Your task to perform on an android device: allow cookies in the chrome app Image 0: 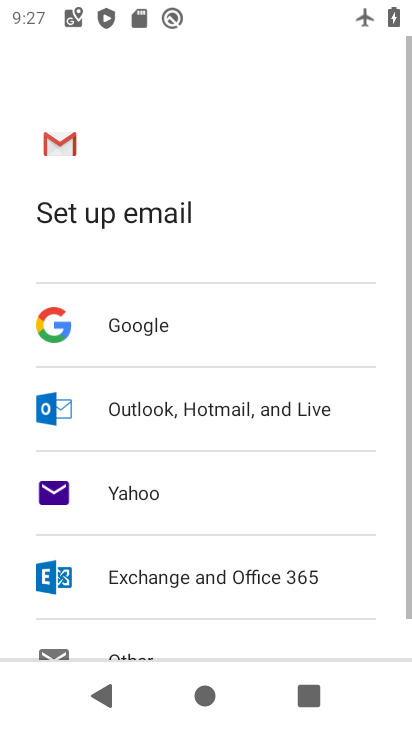
Step 0: press home button
Your task to perform on an android device: allow cookies in the chrome app Image 1: 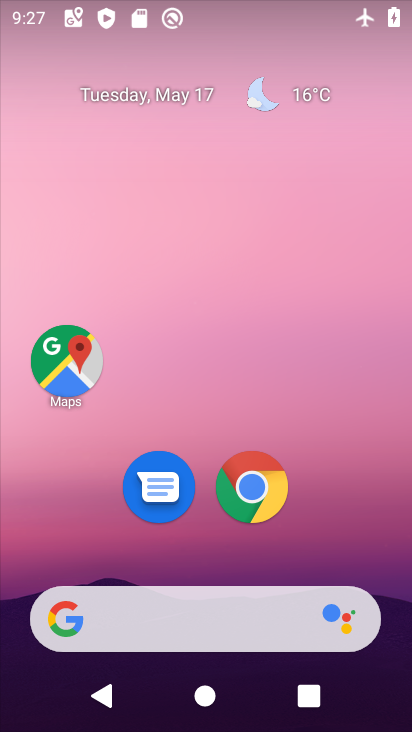
Step 1: click (268, 479)
Your task to perform on an android device: allow cookies in the chrome app Image 2: 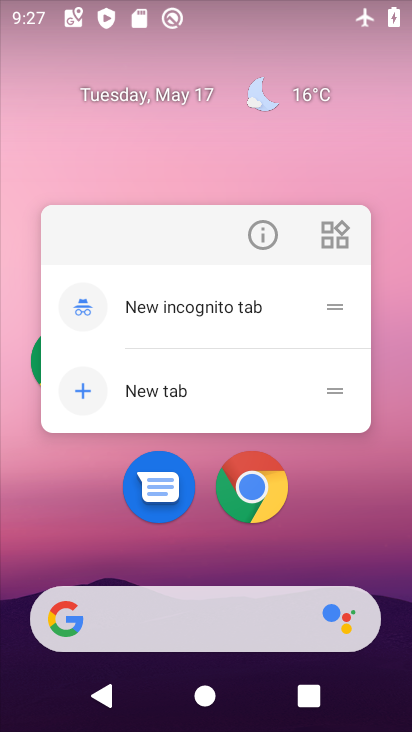
Step 2: click (268, 478)
Your task to perform on an android device: allow cookies in the chrome app Image 3: 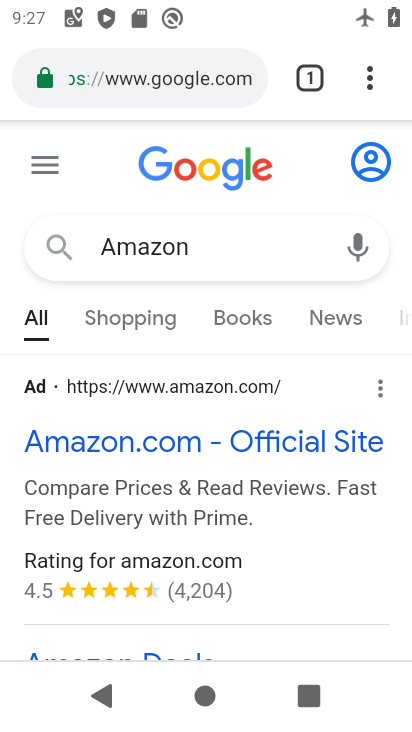
Step 3: click (374, 79)
Your task to perform on an android device: allow cookies in the chrome app Image 4: 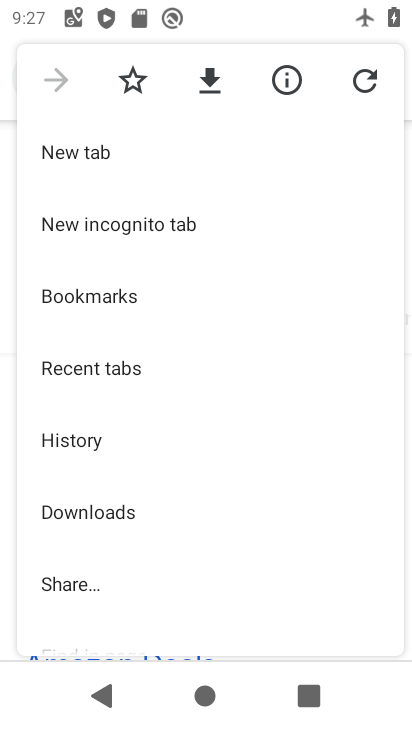
Step 4: drag from (103, 515) to (149, 300)
Your task to perform on an android device: allow cookies in the chrome app Image 5: 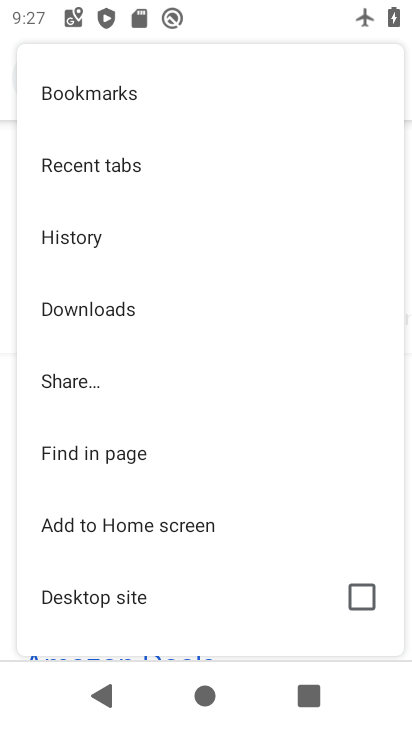
Step 5: drag from (125, 518) to (185, 257)
Your task to perform on an android device: allow cookies in the chrome app Image 6: 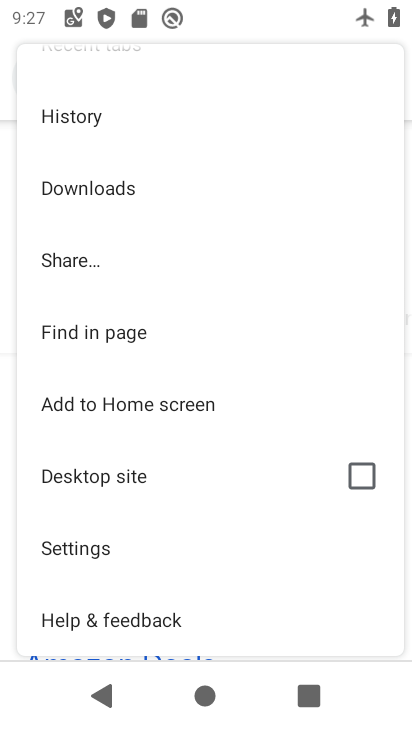
Step 6: click (92, 551)
Your task to perform on an android device: allow cookies in the chrome app Image 7: 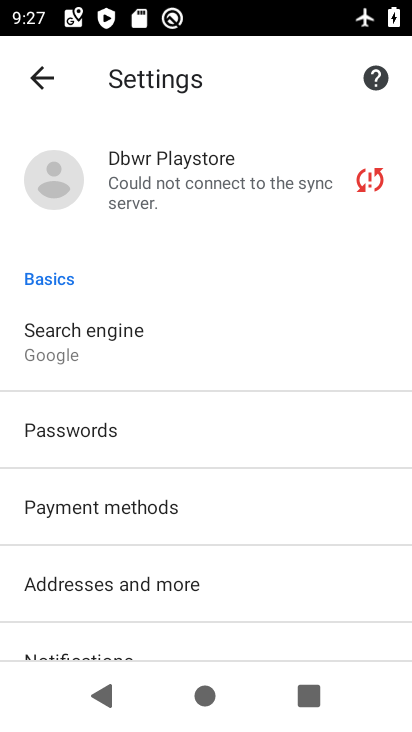
Step 7: drag from (136, 556) to (176, 207)
Your task to perform on an android device: allow cookies in the chrome app Image 8: 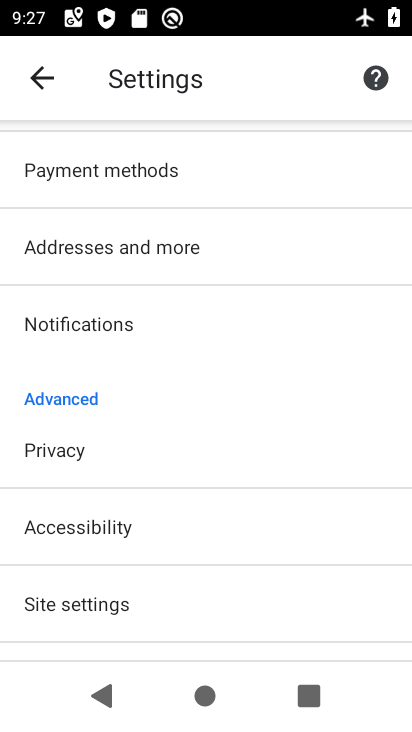
Step 8: click (96, 604)
Your task to perform on an android device: allow cookies in the chrome app Image 9: 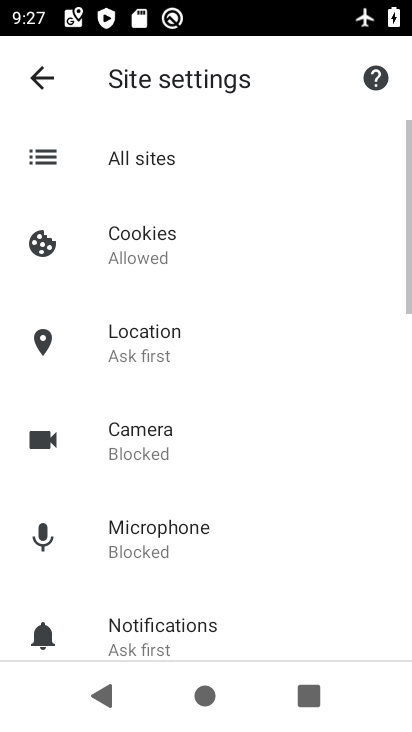
Step 9: click (171, 251)
Your task to perform on an android device: allow cookies in the chrome app Image 10: 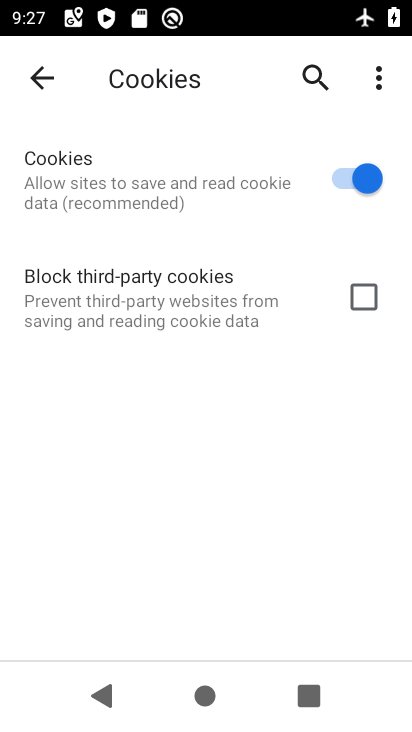
Step 10: task complete